Your task to perform on an android device: Go to Google maps Image 0: 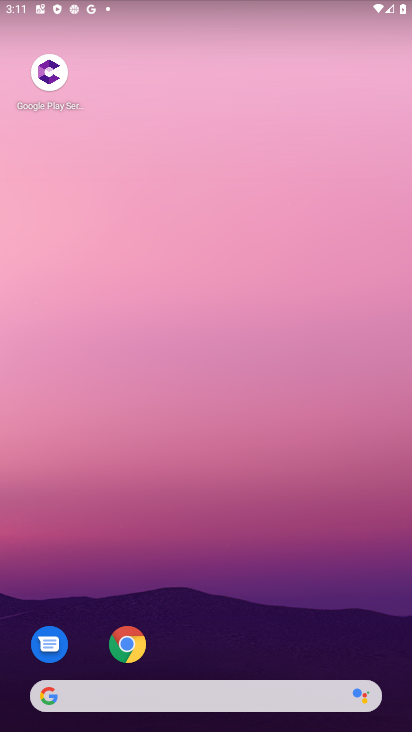
Step 0: drag from (267, 603) to (313, 153)
Your task to perform on an android device: Go to Google maps Image 1: 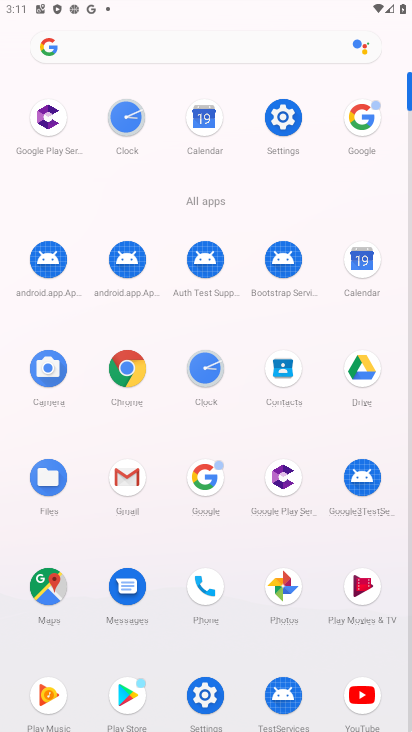
Step 1: drag from (364, 120) to (370, 367)
Your task to perform on an android device: Go to Google maps Image 2: 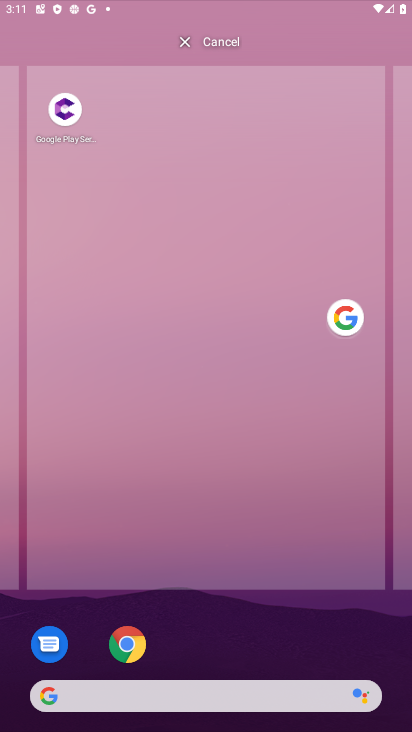
Step 2: drag from (212, 606) to (269, 165)
Your task to perform on an android device: Go to Google maps Image 3: 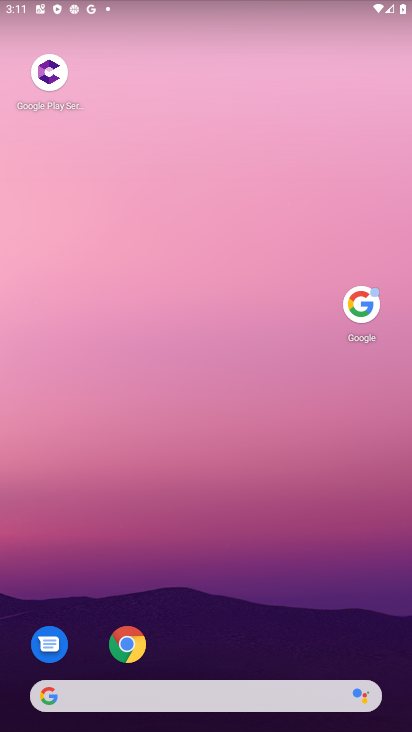
Step 3: drag from (296, 458) to (303, 133)
Your task to perform on an android device: Go to Google maps Image 4: 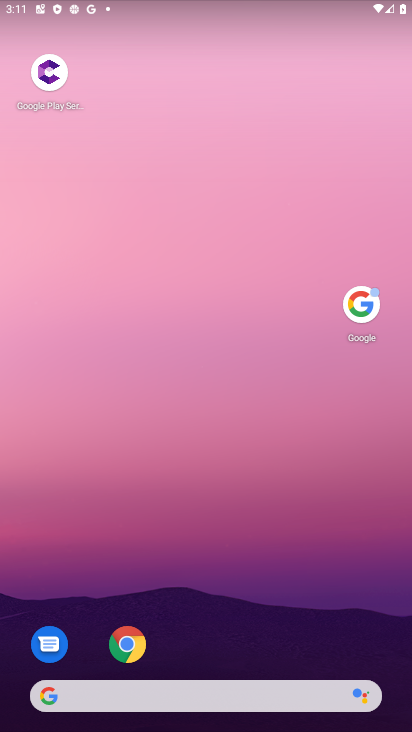
Step 4: drag from (271, 587) to (295, 161)
Your task to perform on an android device: Go to Google maps Image 5: 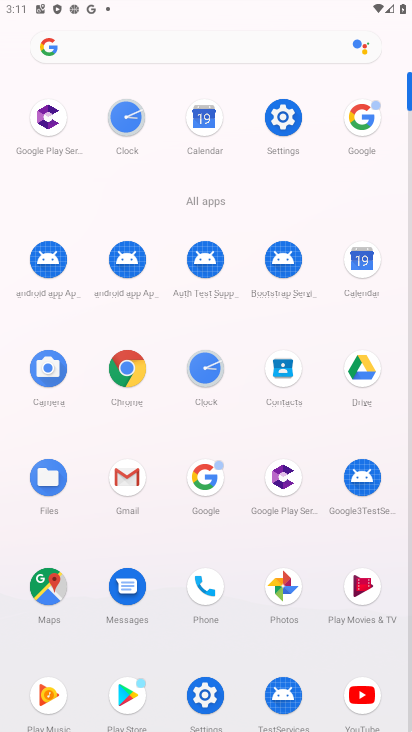
Step 5: click (53, 583)
Your task to perform on an android device: Go to Google maps Image 6: 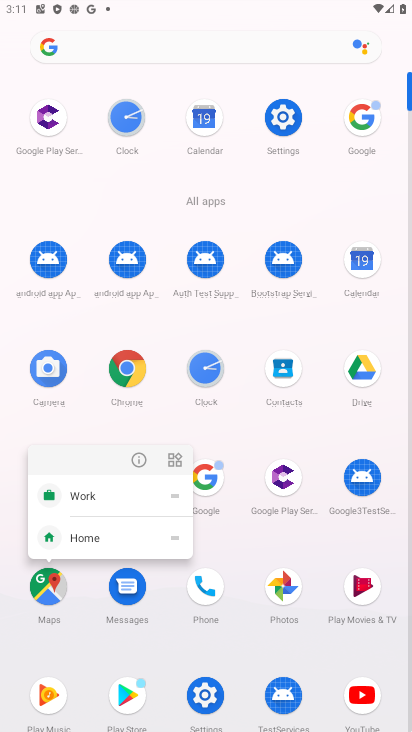
Step 6: click (53, 583)
Your task to perform on an android device: Go to Google maps Image 7: 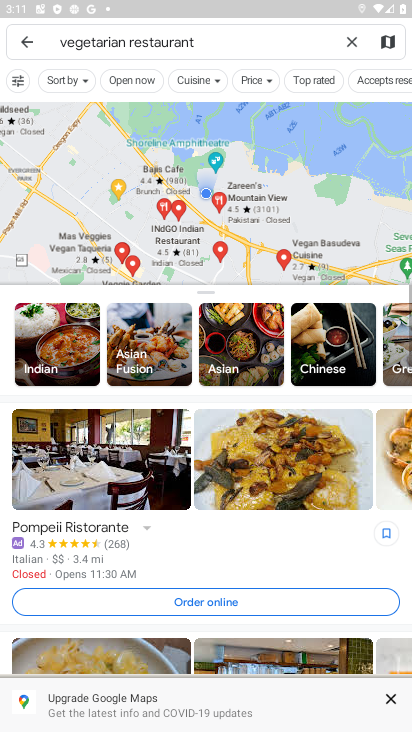
Step 7: click (352, 45)
Your task to perform on an android device: Go to Google maps Image 8: 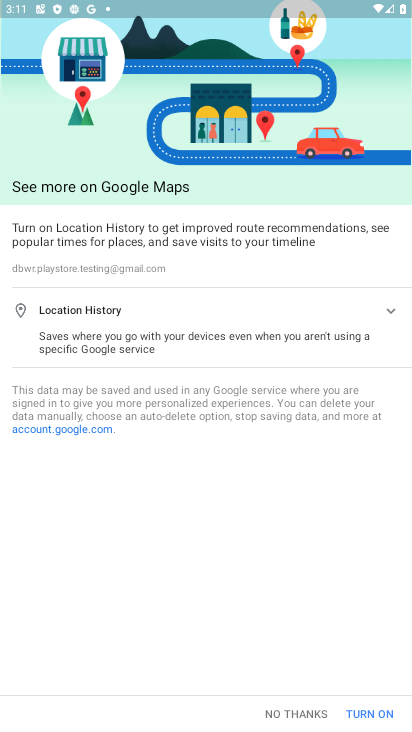
Step 8: task complete